Your task to perform on an android device: Do I have any events today? Image 0: 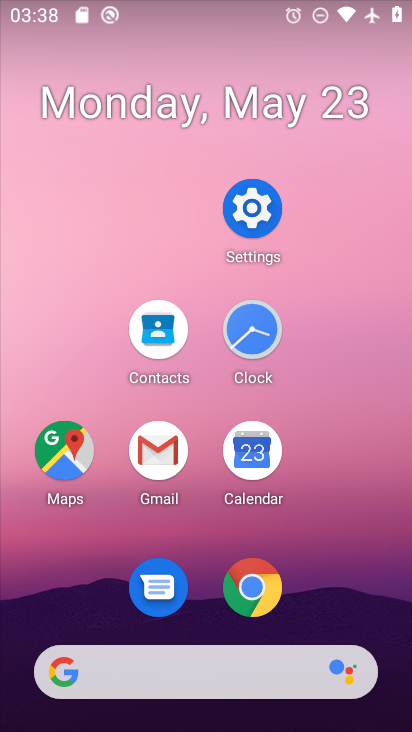
Step 0: click (254, 485)
Your task to perform on an android device: Do I have any events today? Image 1: 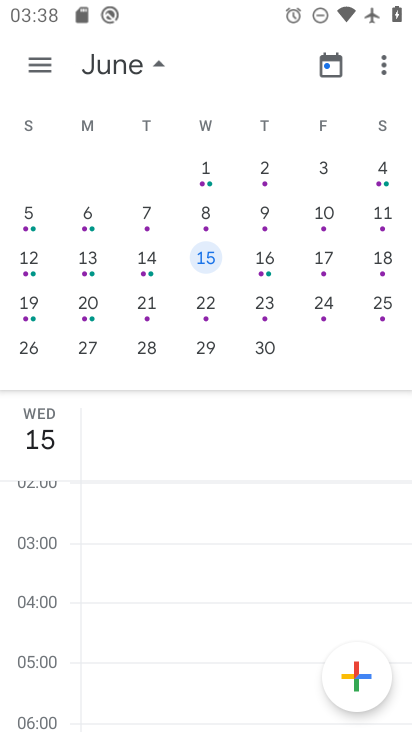
Step 1: drag from (62, 195) to (303, 193)
Your task to perform on an android device: Do I have any events today? Image 2: 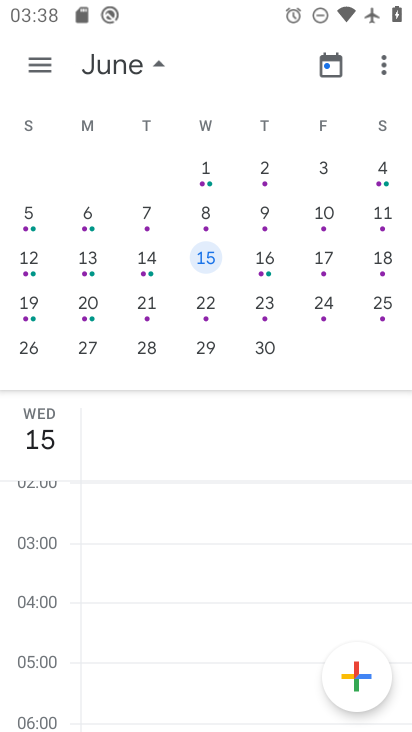
Step 2: drag from (21, 221) to (411, 277)
Your task to perform on an android device: Do I have any events today? Image 3: 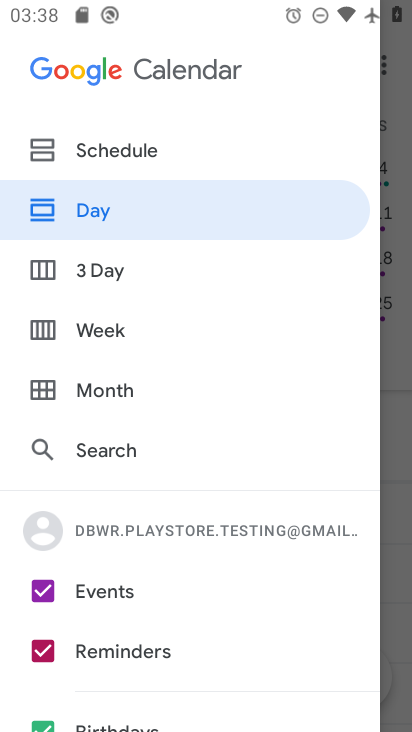
Step 3: click (408, 277)
Your task to perform on an android device: Do I have any events today? Image 4: 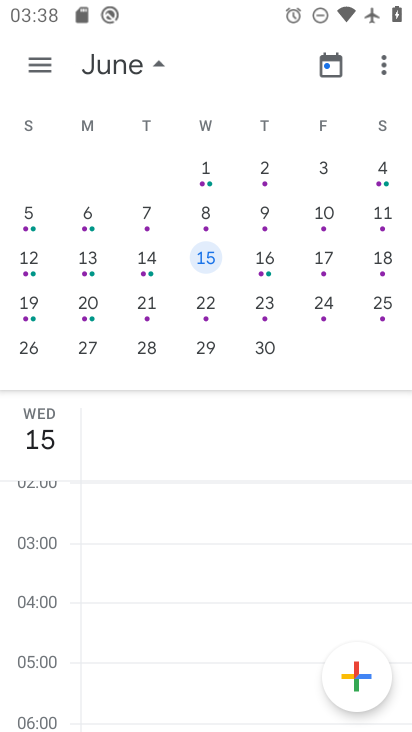
Step 4: drag from (23, 247) to (409, 232)
Your task to perform on an android device: Do I have any events today? Image 5: 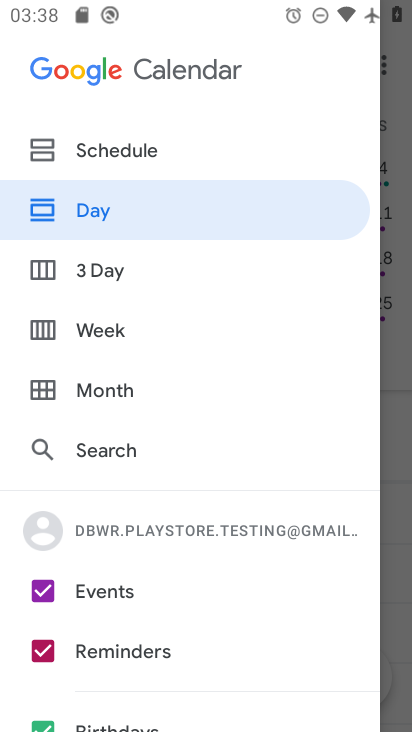
Step 5: click (390, 248)
Your task to perform on an android device: Do I have any events today? Image 6: 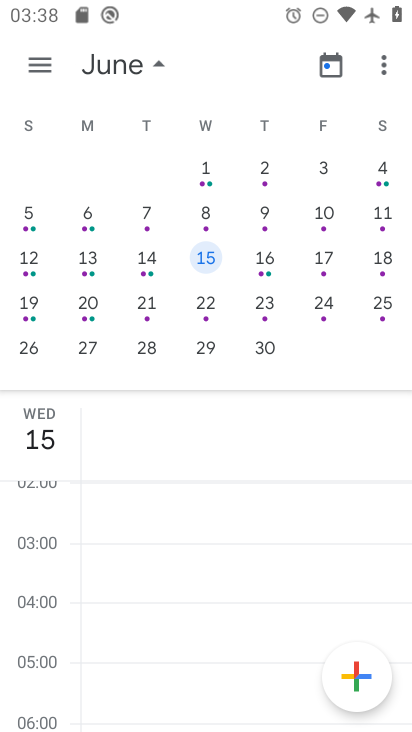
Step 6: task complete